Your task to perform on an android device: What's the news in Peru? Image 0: 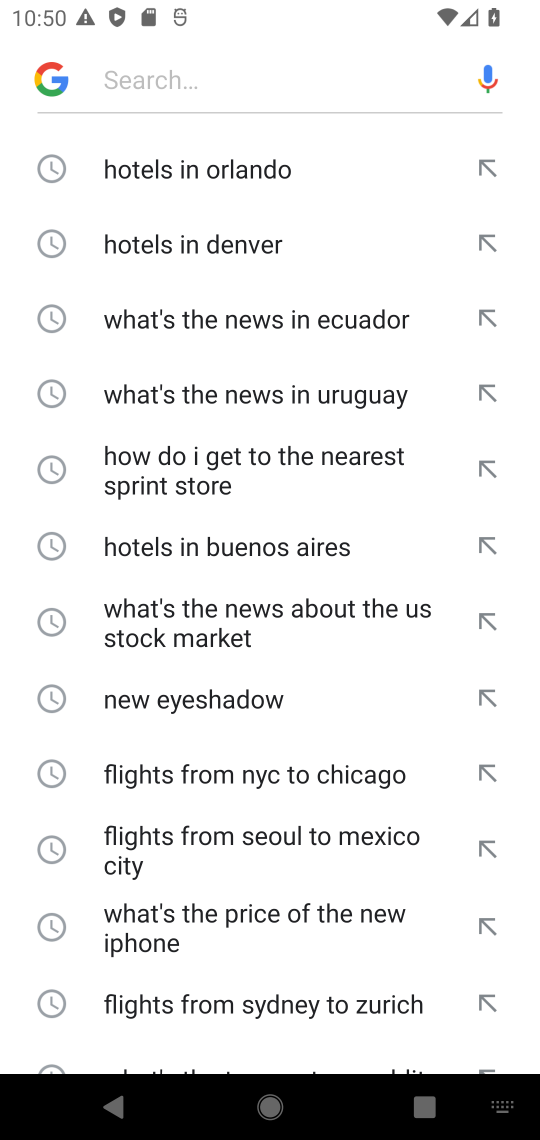
Step 0: press home button
Your task to perform on an android device: What's the news in Peru? Image 1: 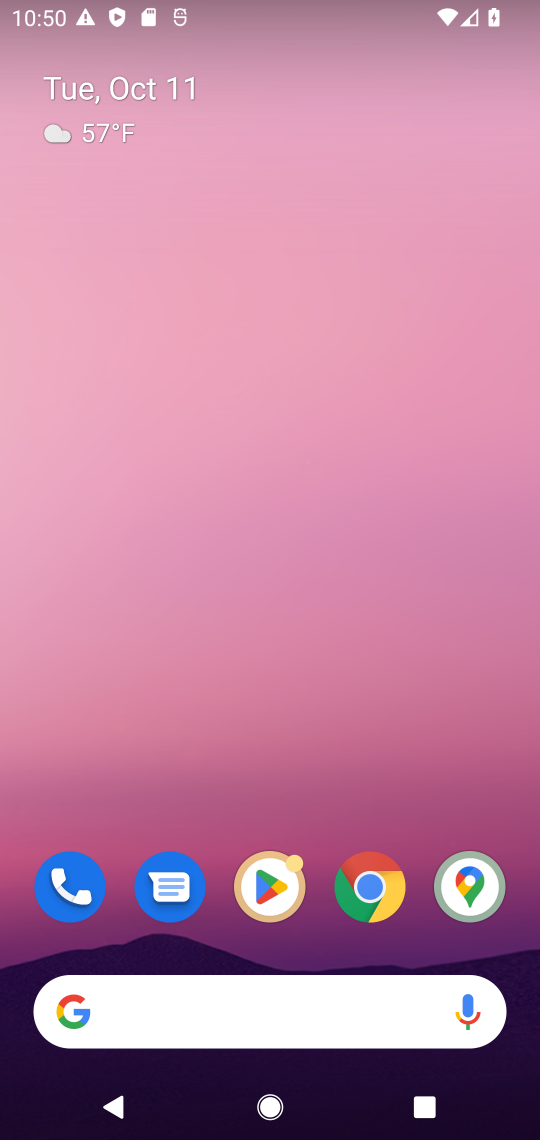
Step 1: click (256, 1021)
Your task to perform on an android device: What's the news in Peru? Image 2: 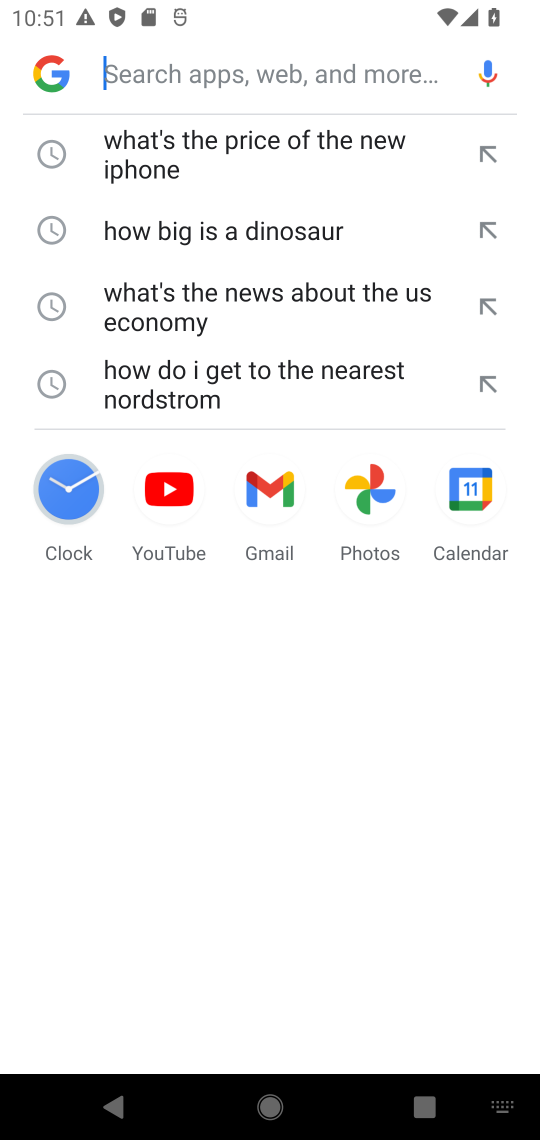
Step 2: type "What's the news in Peru"
Your task to perform on an android device: What's the news in Peru? Image 3: 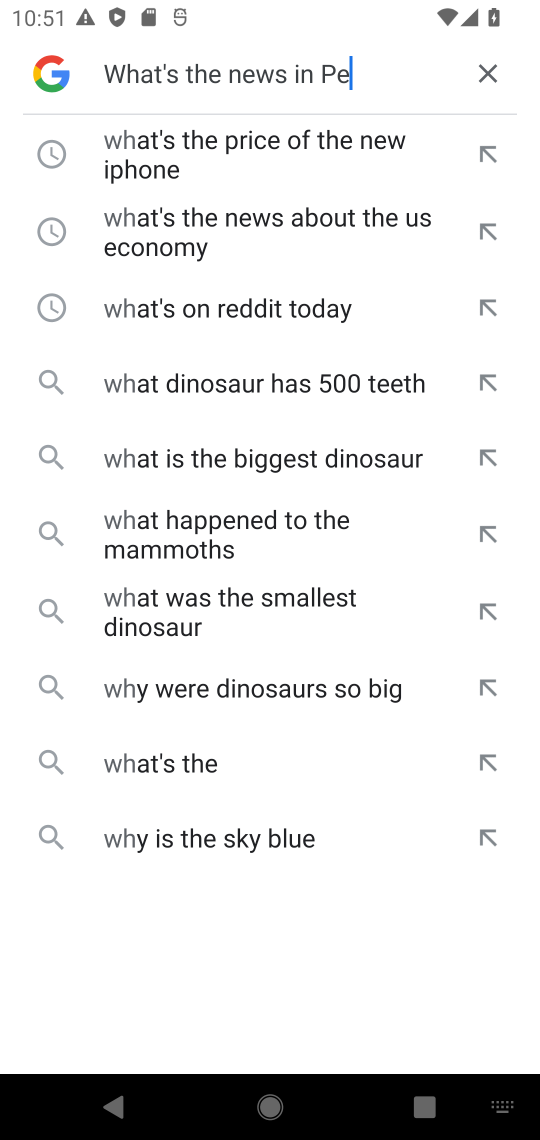
Step 3: press enter
Your task to perform on an android device: What's the news in Peru? Image 4: 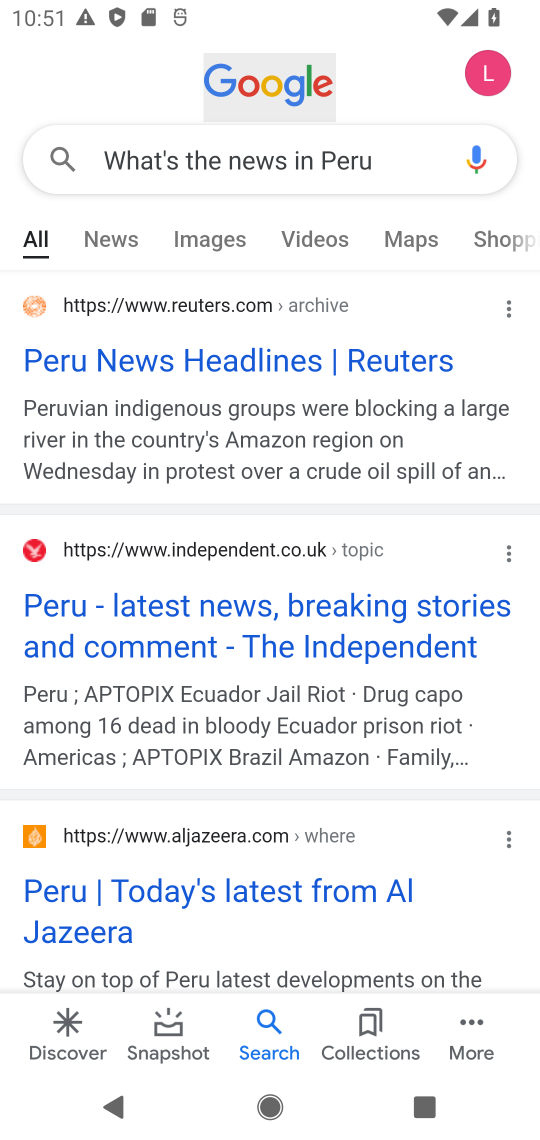
Step 4: click (298, 646)
Your task to perform on an android device: What's the news in Peru? Image 5: 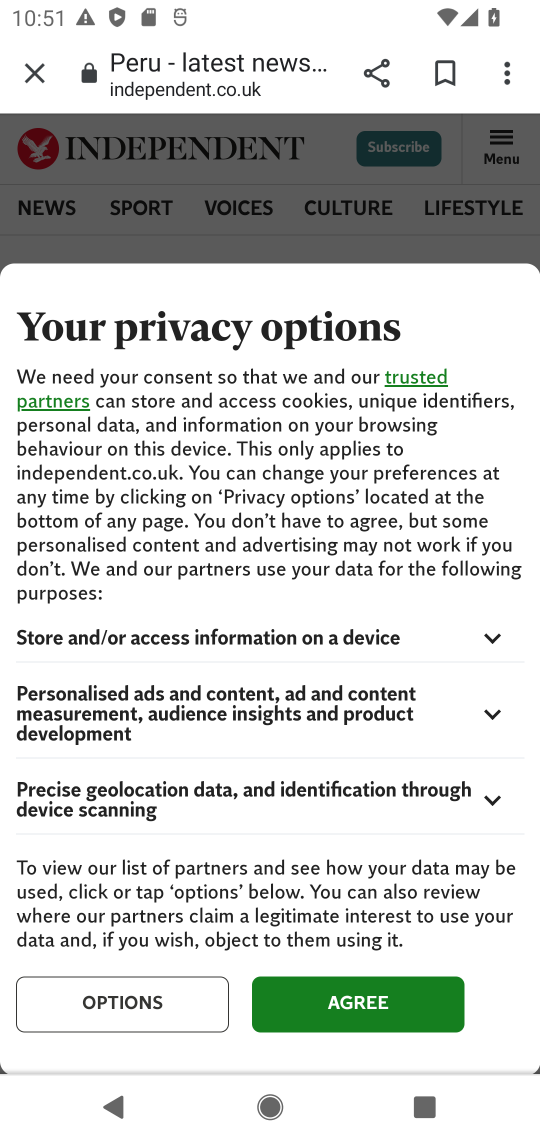
Step 5: click (400, 997)
Your task to perform on an android device: What's the news in Peru? Image 6: 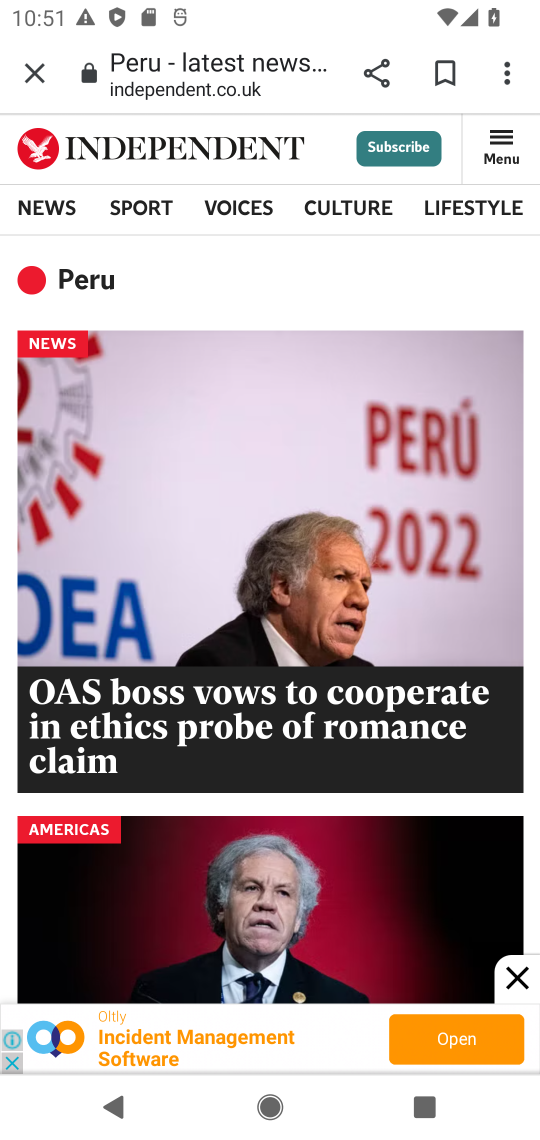
Step 6: task complete